Your task to perform on an android device: What's the weather like in Mumbai? Image 0: 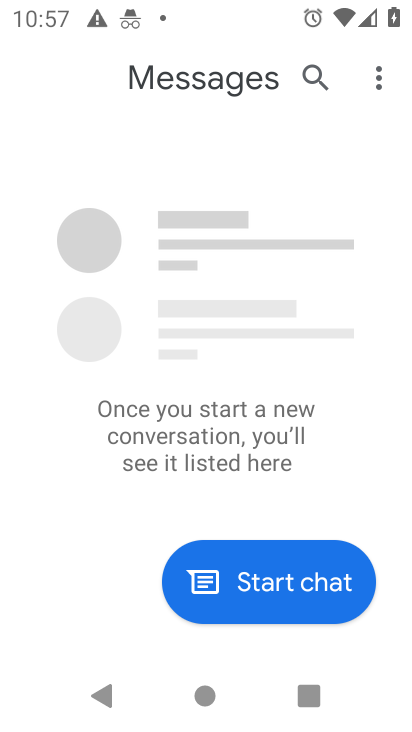
Step 0: press home button
Your task to perform on an android device: What's the weather like in Mumbai? Image 1: 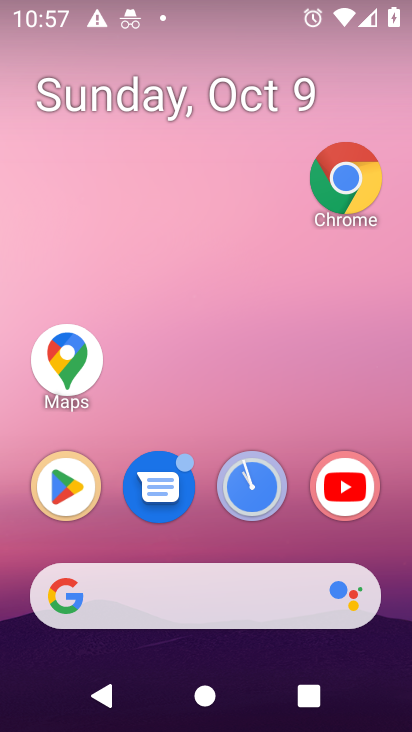
Step 1: drag from (244, 594) to (275, 0)
Your task to perform on an android device: What's the weather like in Mumbai? Image 2: 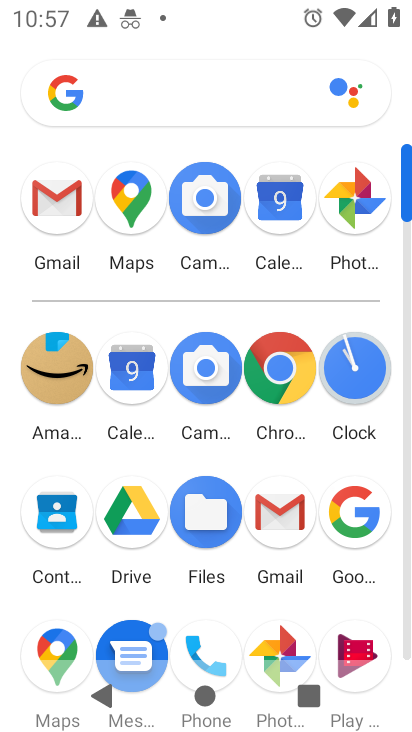
Step 2: click (361, 532)
Your task to perform on an android device: What's the weather like in Mumbai? Image 3: 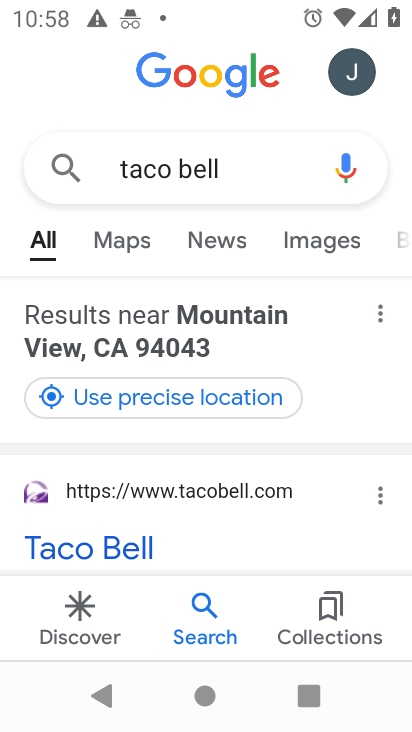
Step 3: click (279, 160)
Your task to perform on an android device: What's the weather like in Mumbai? Image 4: 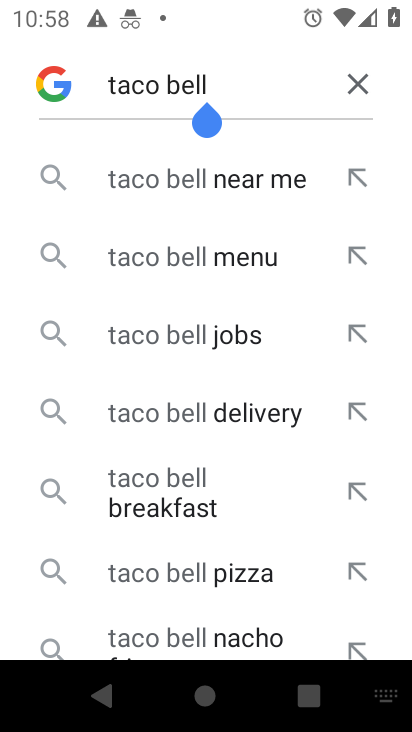
Step 4: click (355, 92)
Your task to perform on an android device: What's the weather like in Mumbai? Image 5: 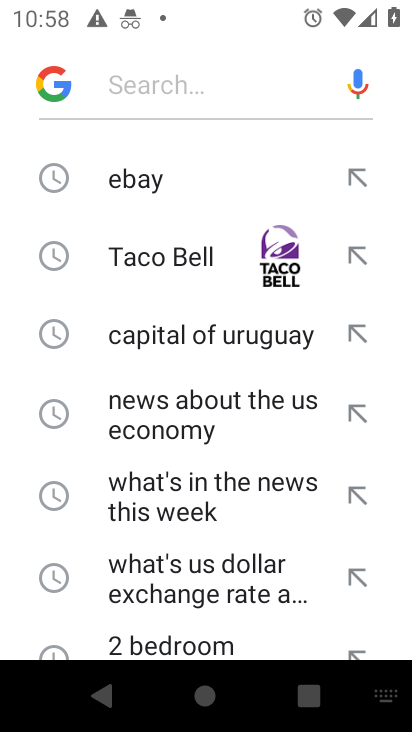
Step 5: type "What's the weather like in Mumbai?"
Your task to perform on an android device: What's the weather like in Mumbai? Image 6: 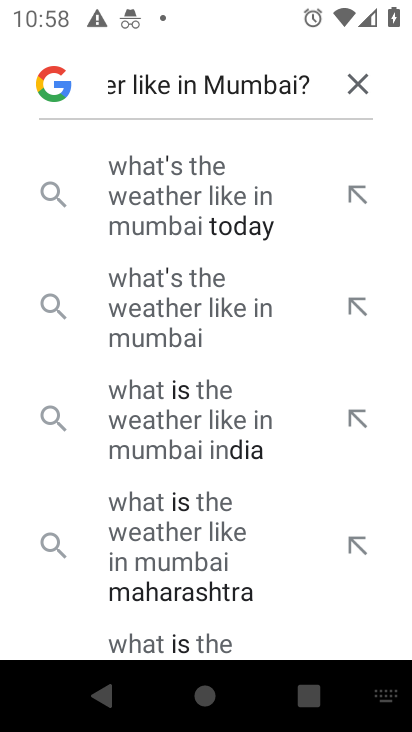
Step 6: click (251, 203)
Your task to perform on an android device: What's the weather like in Mumbai? Image 7: 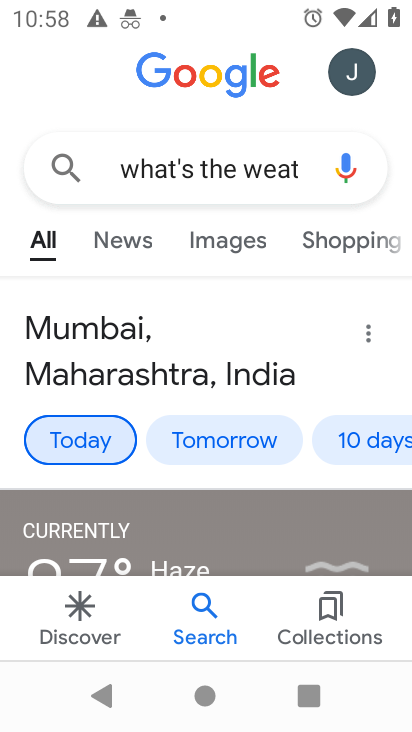
Step 7: task complete